Your task to perform on an android device: open app "Facebook Messenger" Image 0: 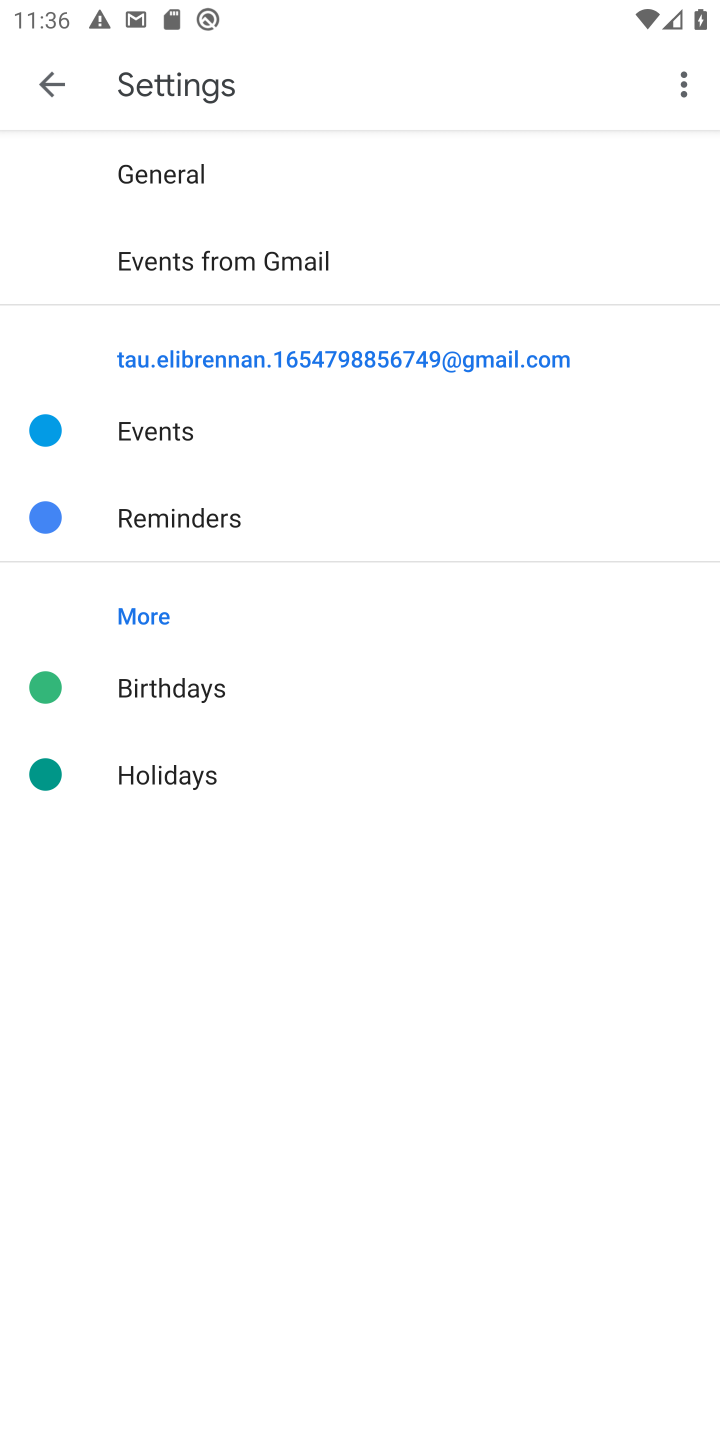
Step 0: press home button
Your task to perform on an android device: open app "Facebook Messenger" Image 1: 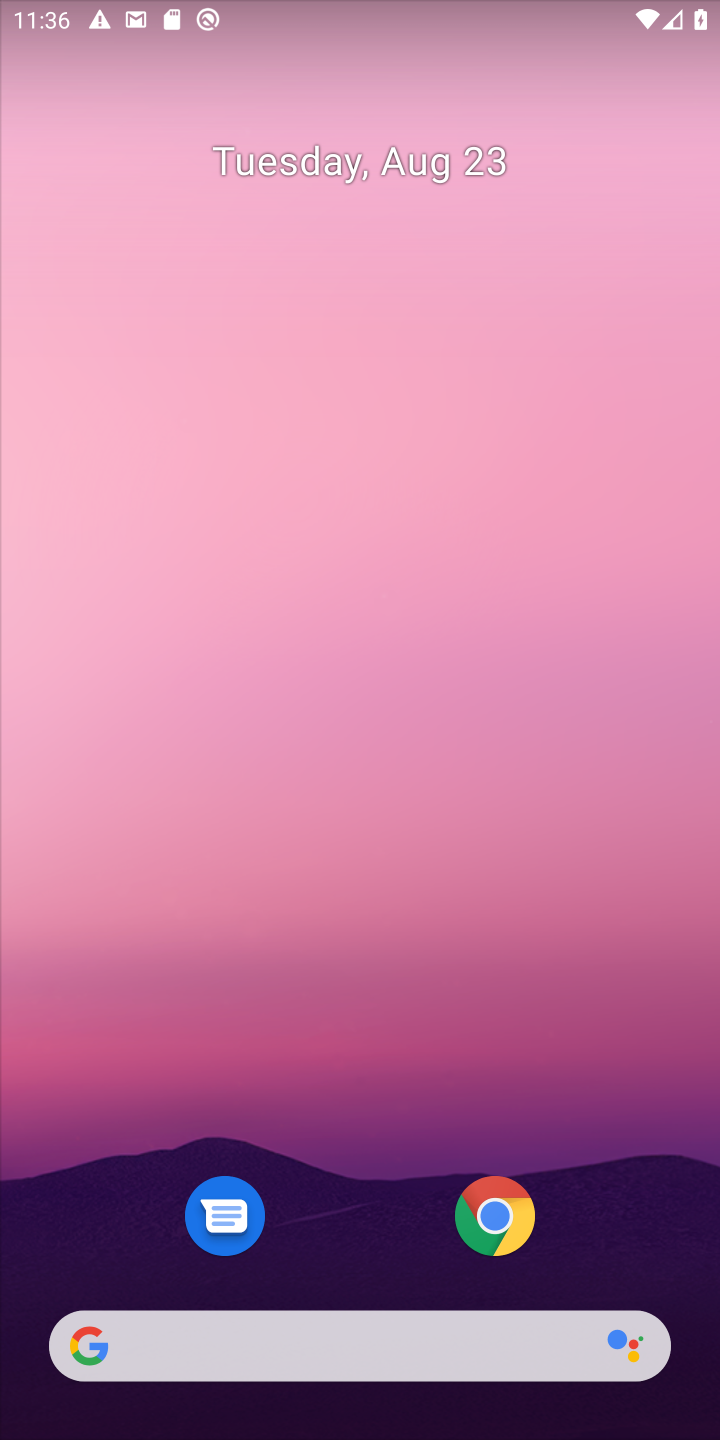
Step 1: drag from (363, 1228) to (406, 76)
Your task to perform on an android device: open app "Facebook Messenger" Image 2: 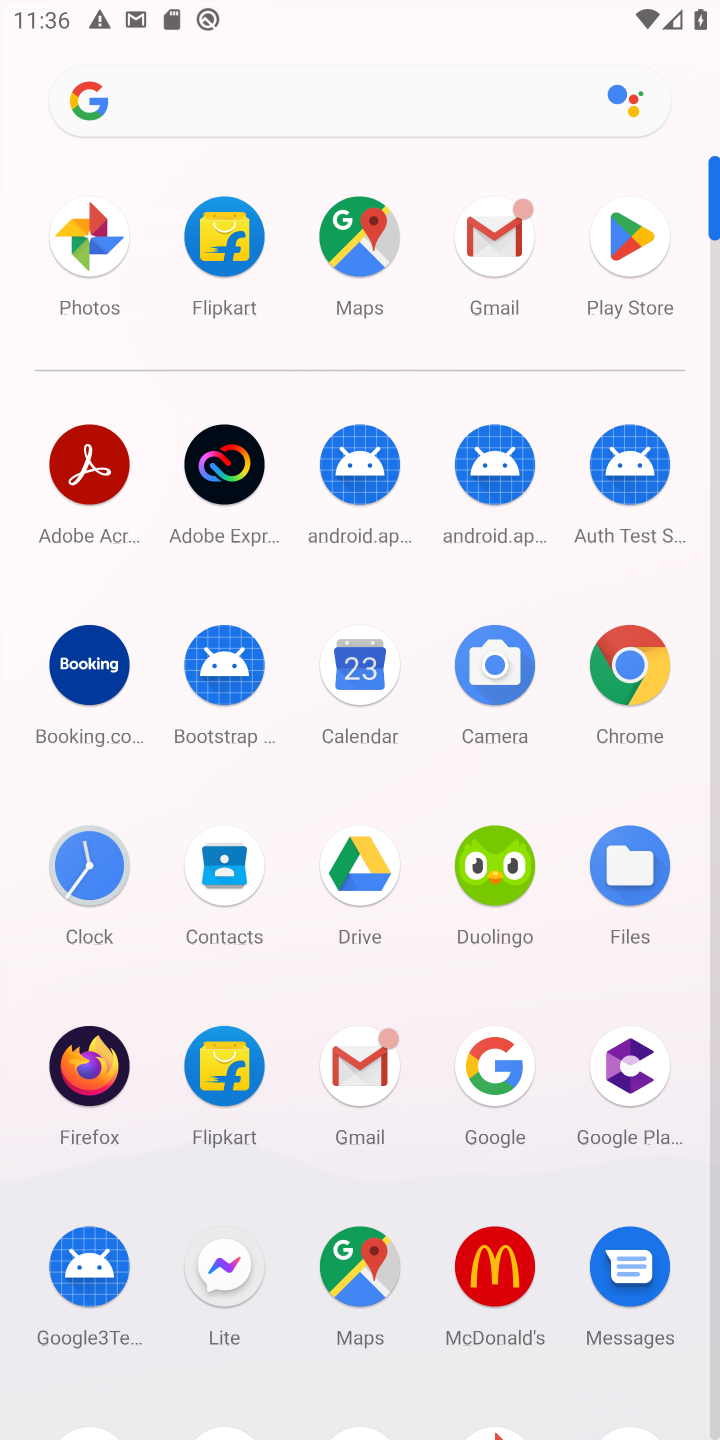
Step 2: click (614, 236)
Your task to perform on an android device: open app "Facebook Messenger" Image 3: 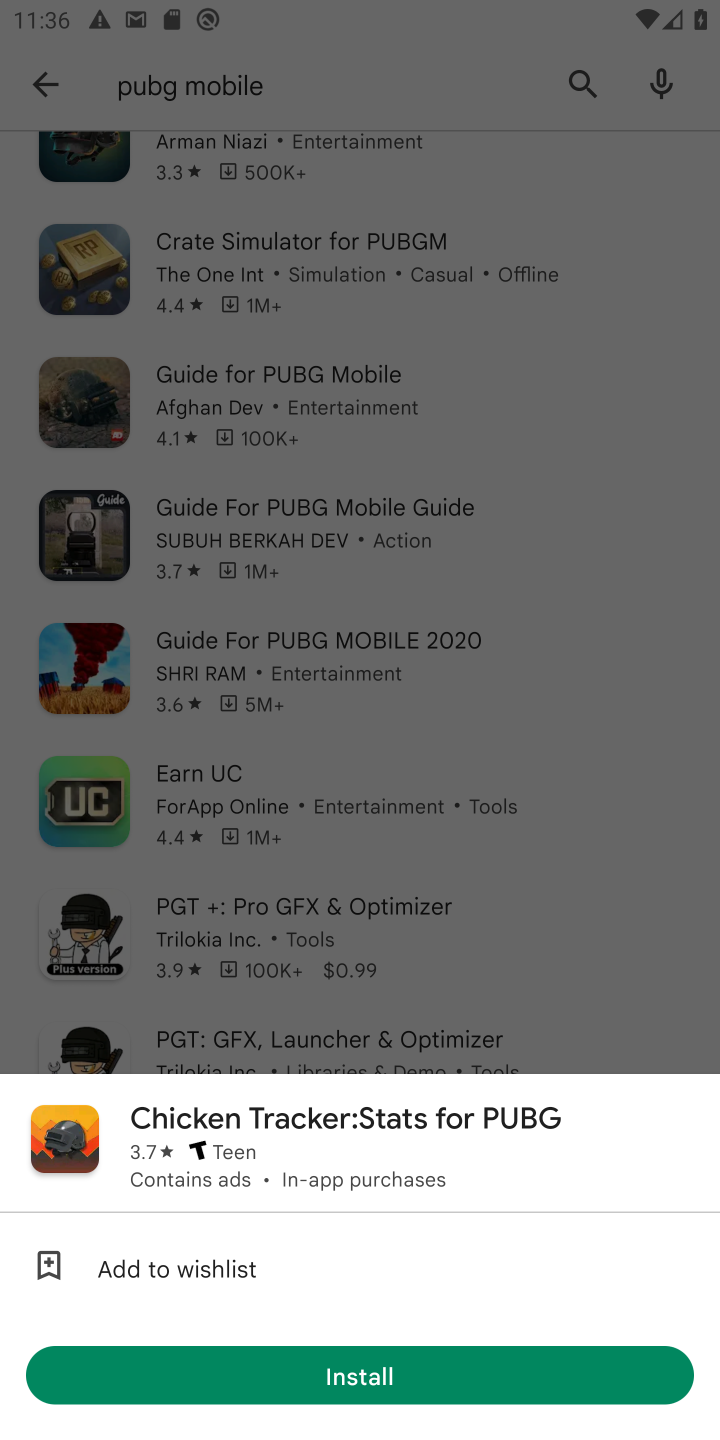
Step 3: press back button
Your task to perform on an android device: open app "Facebook Messenger" Image 4: 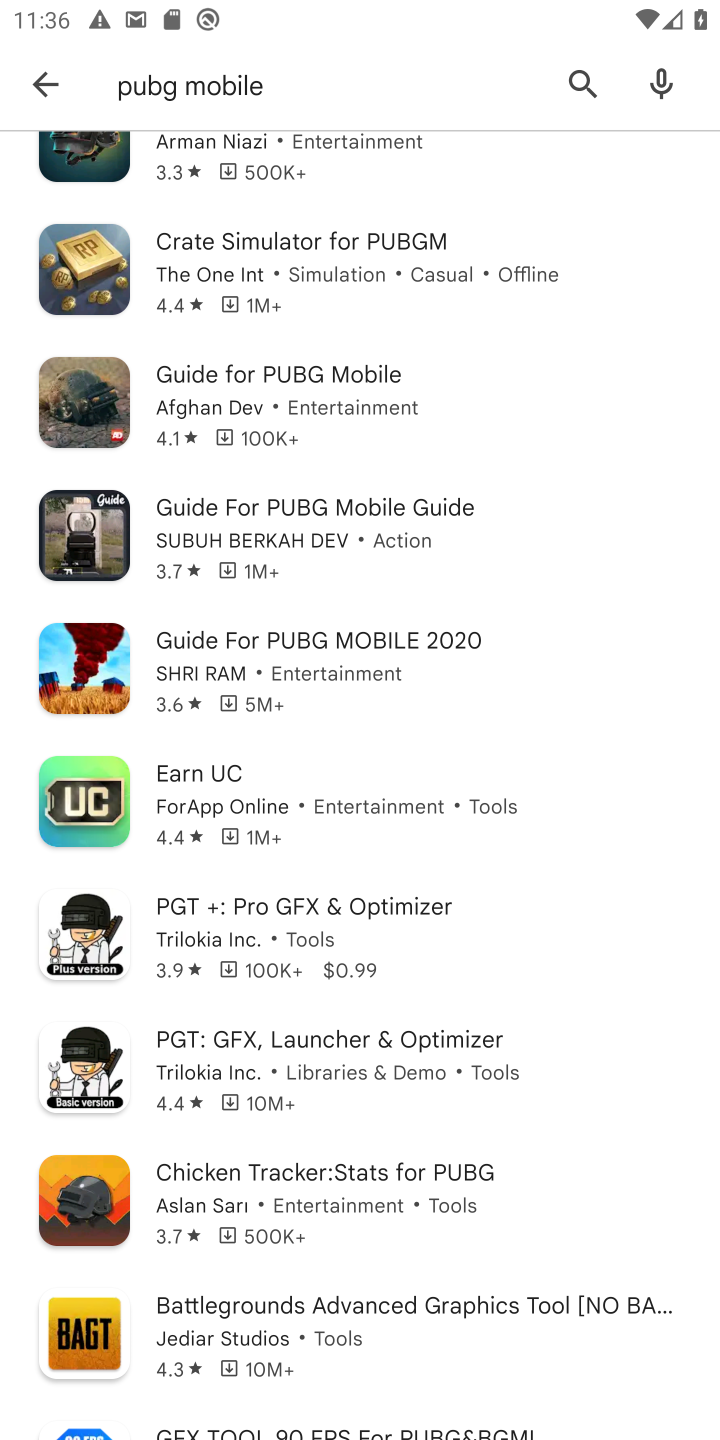
Step 4: press back button
Your task to perform on an android device: open app "Facebook Messenger" Image 5: 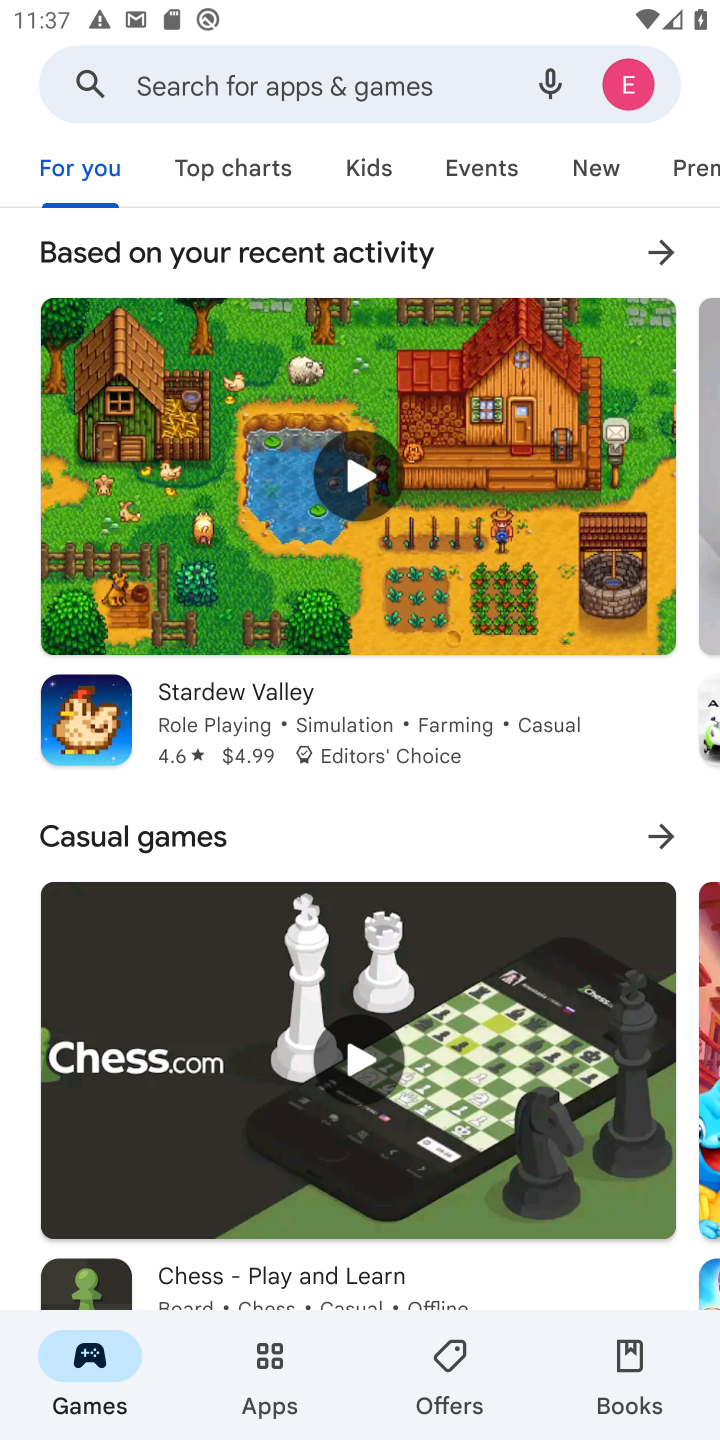
Step 5: click (251, 85)
Your task to perform on an android device: open app "Facebook Messenger" Image 6: 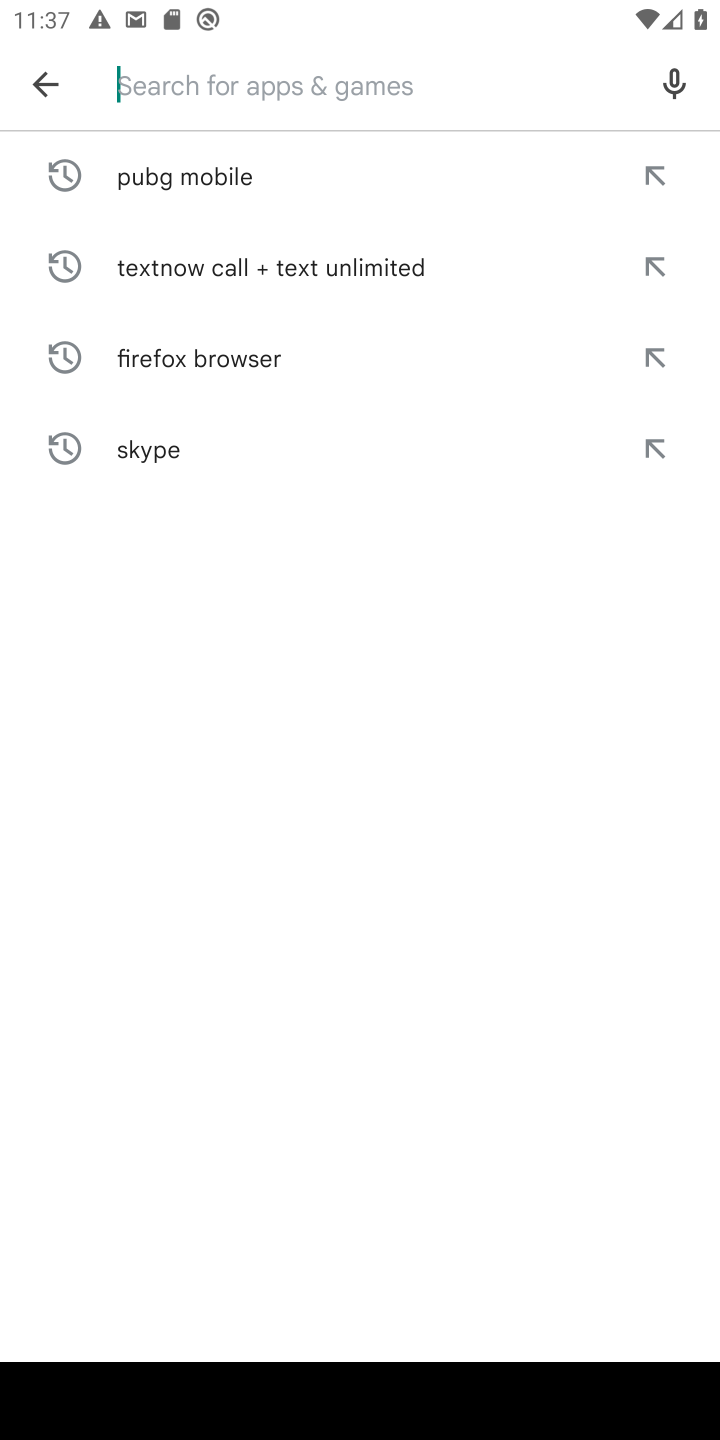
Step 6: type "Facebook Messenger"
Your task to perform on an android device: open app "Facebook Messenger" Image 7: 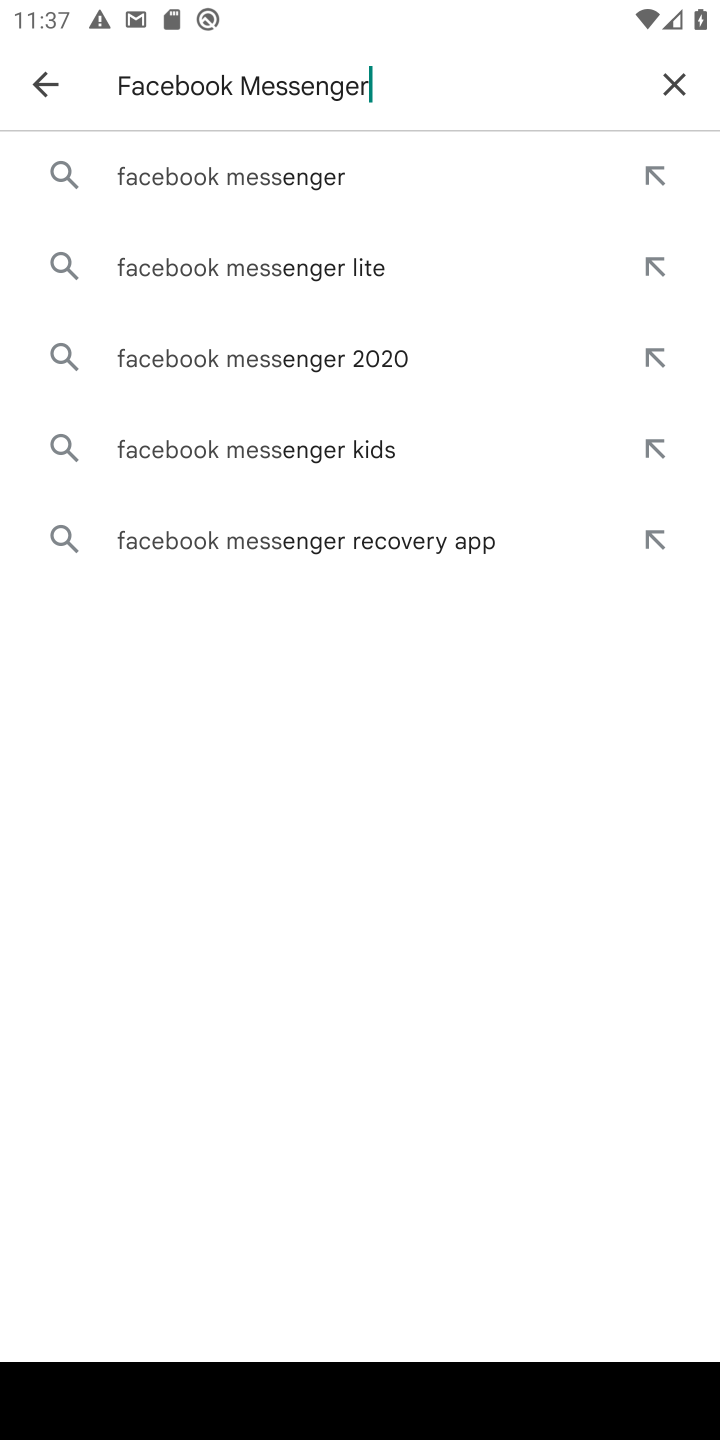
Step 7: type ""
Your task to perform on an android device: open app "Facebook Messenger" Image 8: 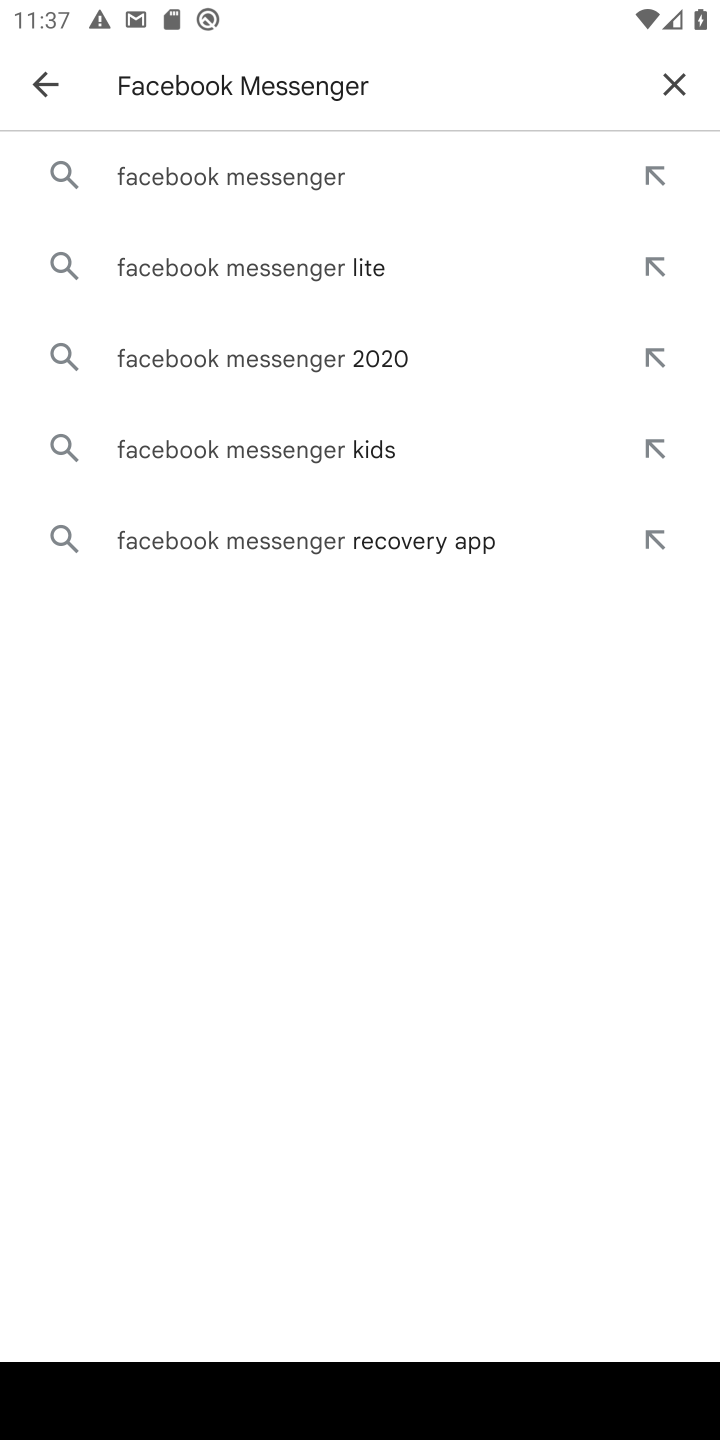
Step 8: click (217, 195)
Your task to perform on an android device: open app "Facebook Messenger" Image 9: 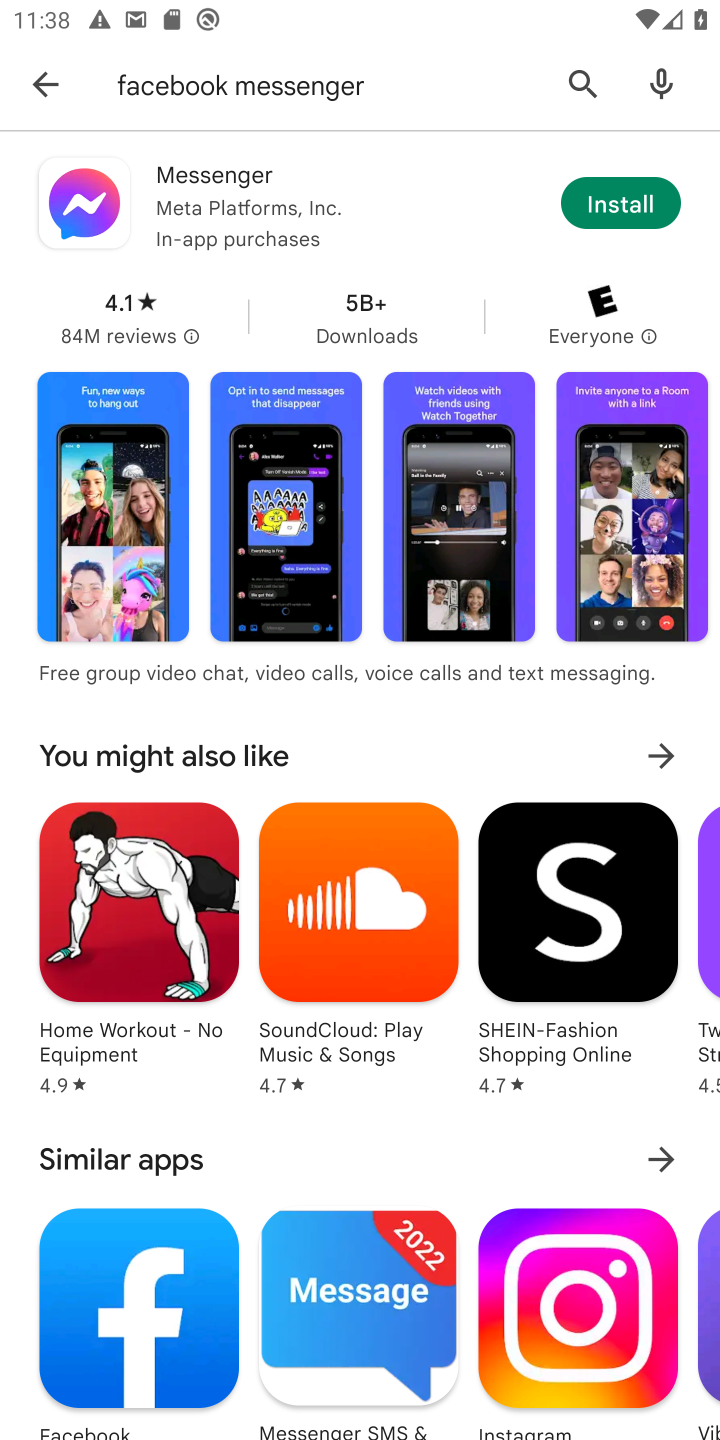
Step 9: task complete